Your task to perform on an android device: check the backup settings in the google photos Image 0: 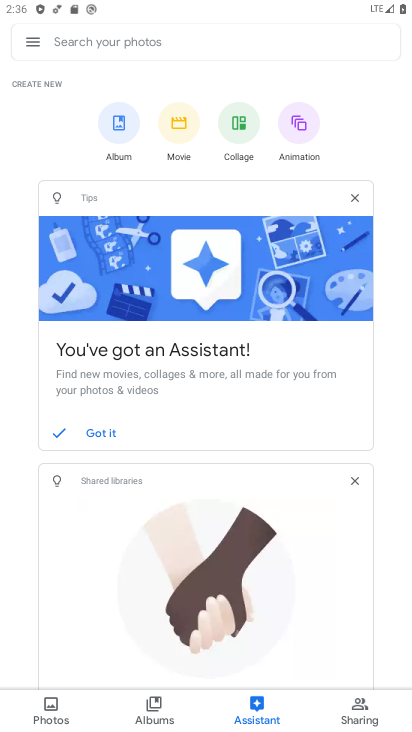
Step 0: press home button
Your task to perform on an android device: check the backup settings in the google photos Image 1: 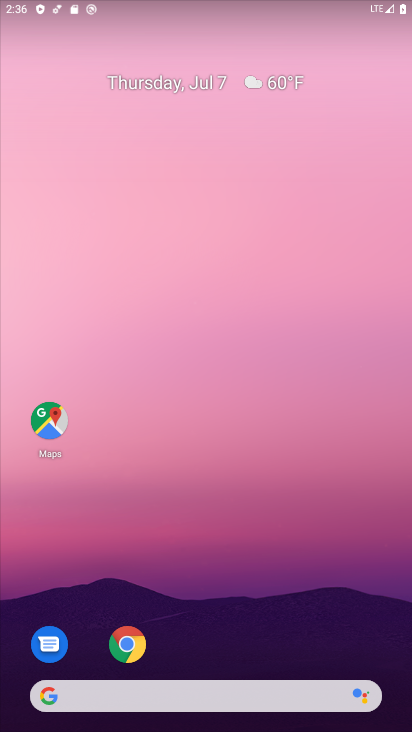
Step 1: drag from (200, 690) to (228, 15)
Your task to perform on an android device: check the backup settings in the google photos Image 2: 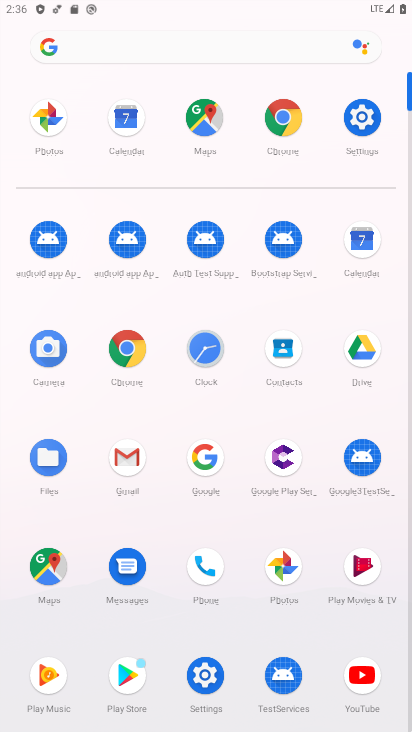
Step 2: click (279, 572)
Your task to perform on an android device: check the backup settings in the google photos Image 3: 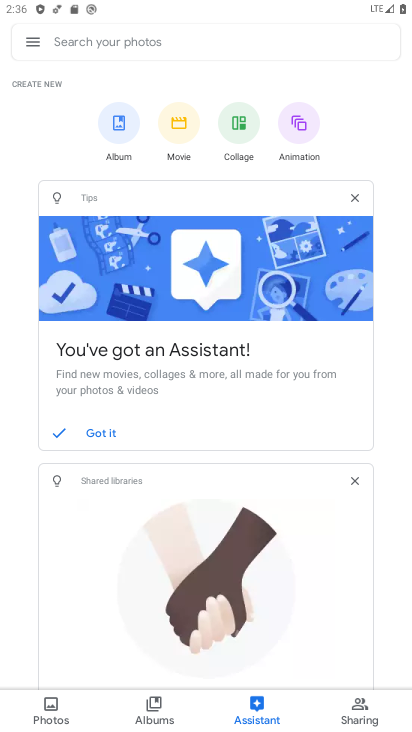
Step 3: press home button
Your task to perform on an android device: check the backup settings in the google photos Image 4: 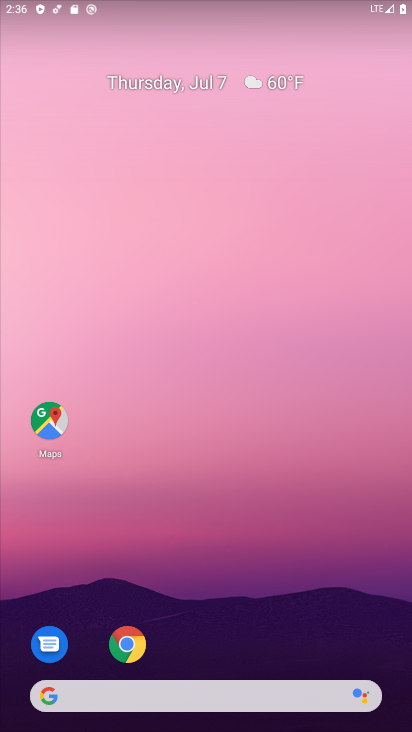
Step 4: drag from (205, 705) to (220, 272)
Your task to perform on an android device: check the backup settings in the google photos Image 5: 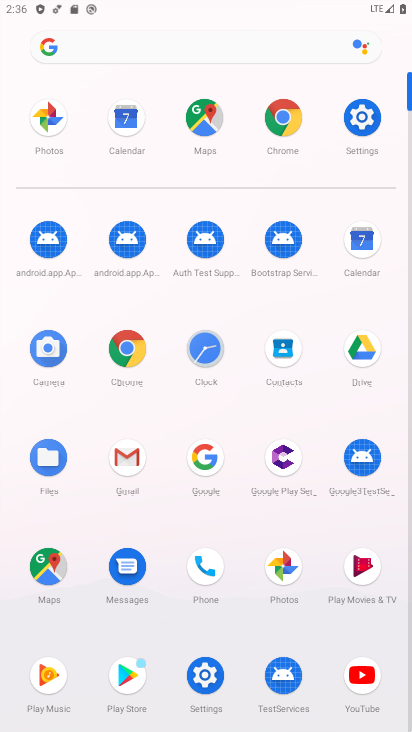
Step 5: click (287, 578)
Your task to perform on an android device: check the backup settings in the google photos Image 6: 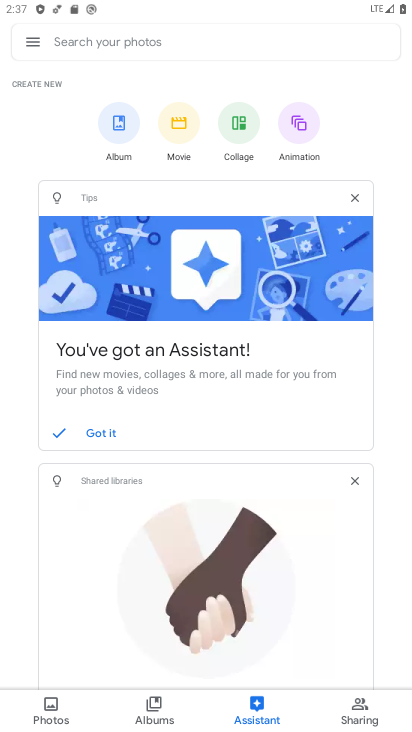
Step 6: click (27, 31)
Your task to perform on an android device: check the backup settings in the google photos Image 7: 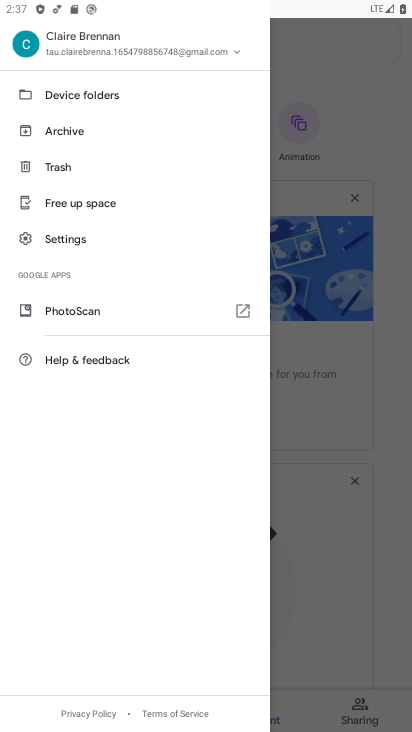
Step 7: click (69, 240)
Your task to perform on an android device: check the backup settings in the google photos Image 8: 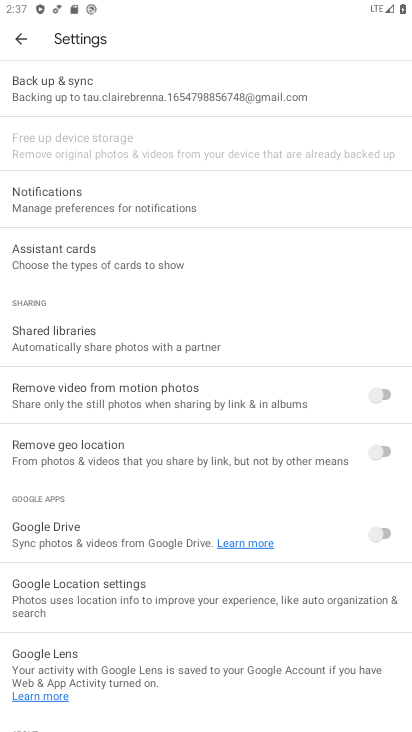
Step 8: click (90, 105)
Your task to perform on an android device: check the backup settings in the google photos Image 9: 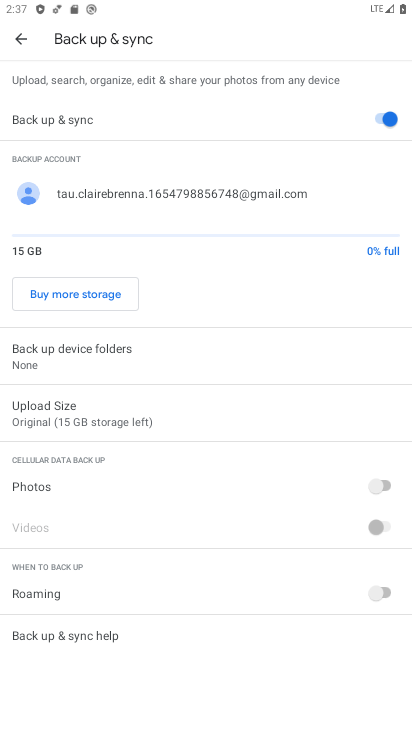
Step 9: task complete